Your task to perform on an android device: Open sound settings Image 0: 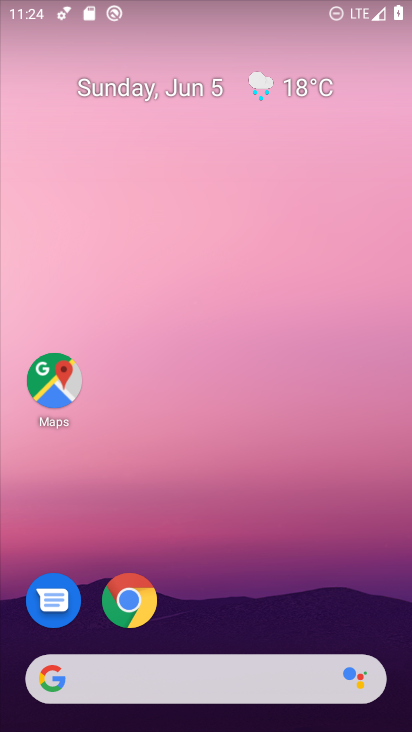
Step 0: drag from (188, 614) to (188, 246)
Your task to perform on an android device: Open sound settings Image 1: 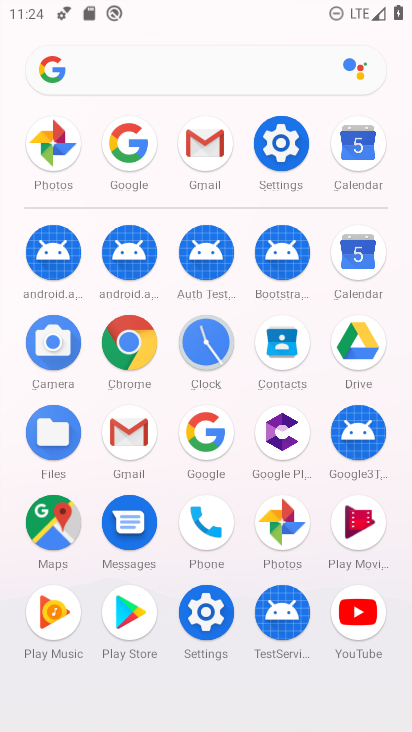
Step 1: click (272, 151)
Your task to perform on an android device: Open sound settings Image 2: 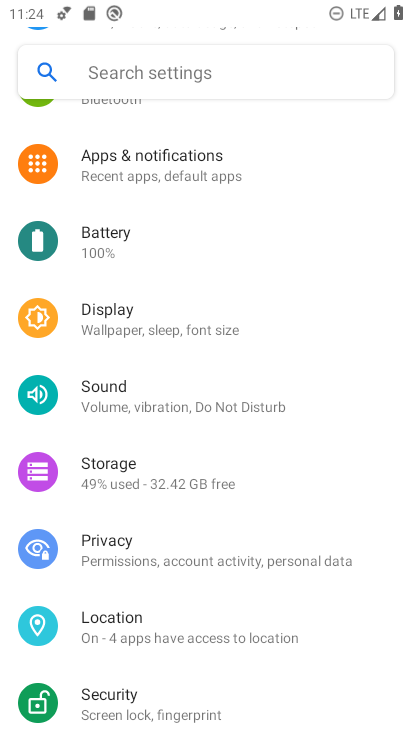
Step 2: click (164, 389)
Your task to perform on an android device: Open sound settings Image 3: 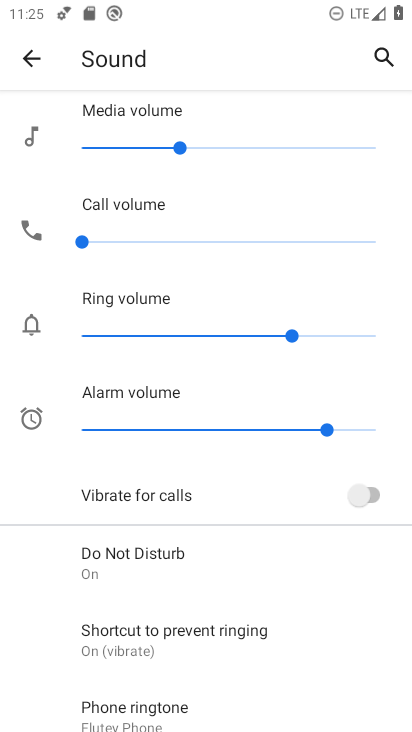
Step 3: task complete